Your task to perform on an android device: uninstall "Duolingo: language lessons" Image 0: 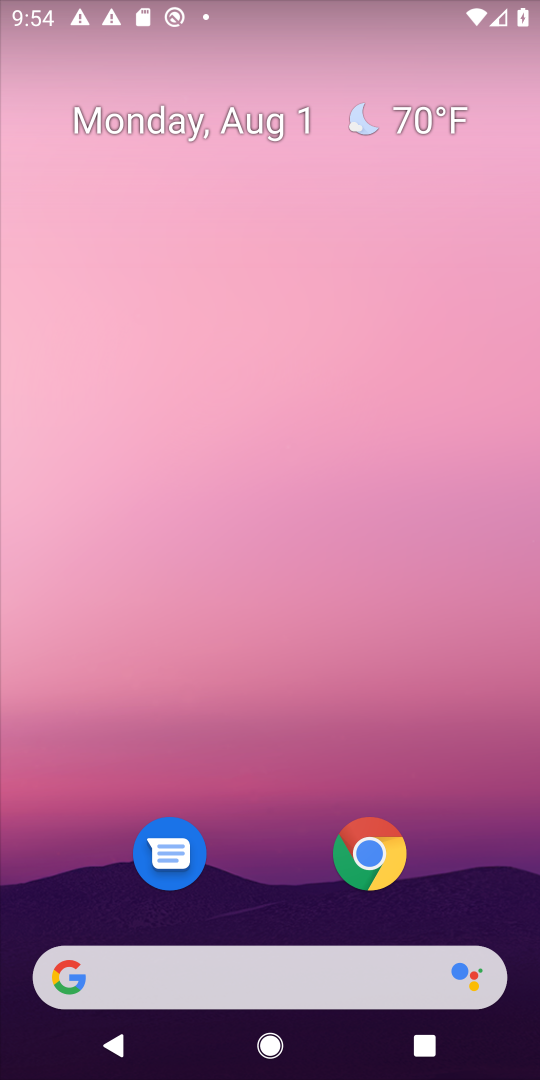
Step 0: drag from (294, 664) to (323, 155)
Your task to perform on an android device: uninstall "Duolingo: language lessons" Image 1: 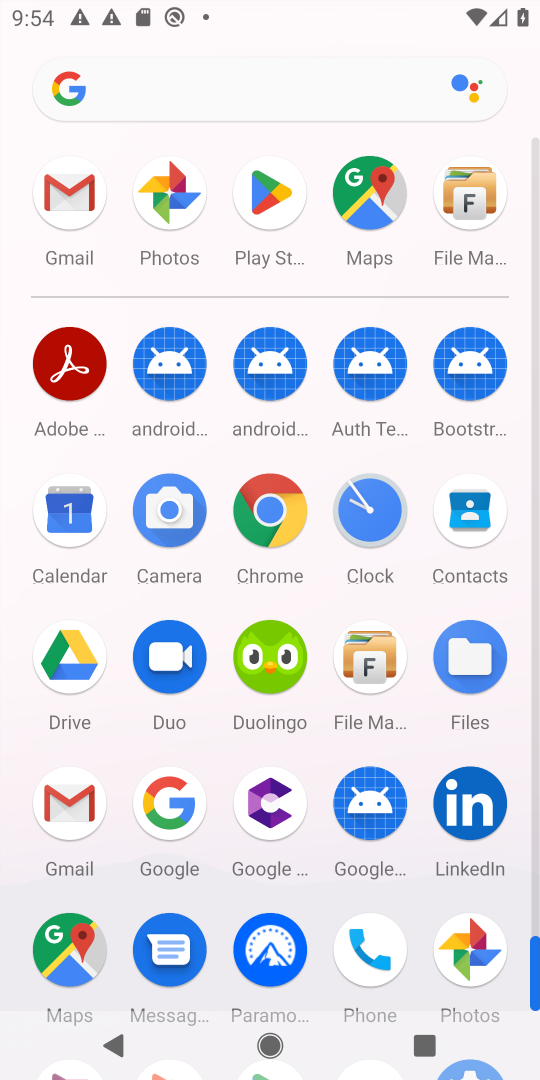
Step 1: click (246, 201)
Your task to perform on an android device: uninstall "Duolingo: language lessons" Image 2: 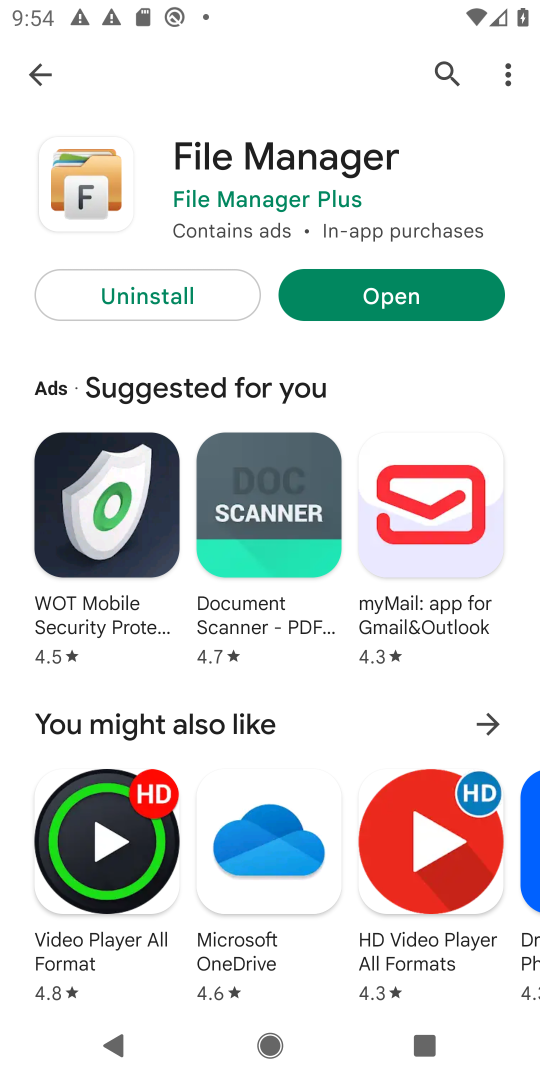
Step 2: click (433, 65)
Your task to perform on an android device: uninstall "Duolingo: language lessons" Image 3: 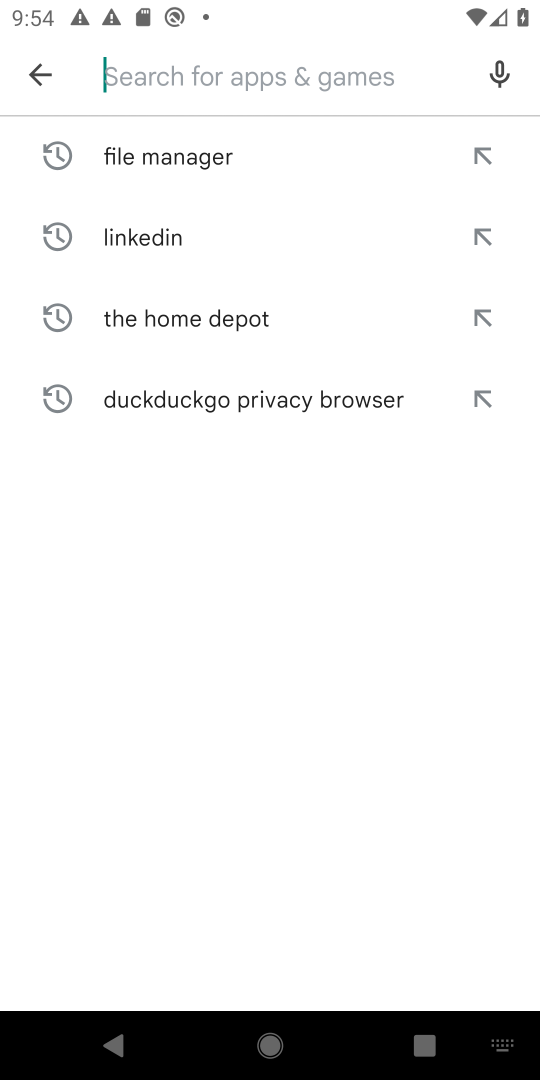
Step 3: click (213, 63)
Your task to perform on an android device: uninstall "Duolingo: language lessons" Image 4: 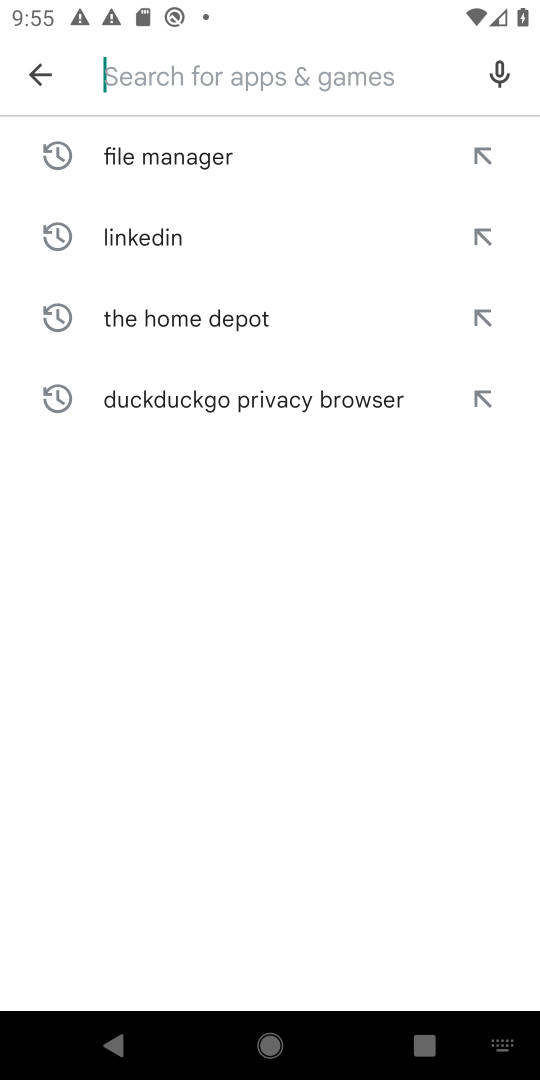
Step 4: type "Duolingo: language lessons"
Your task to perform on an android device: uninstall "Duolingo: language lessons" Image 5: 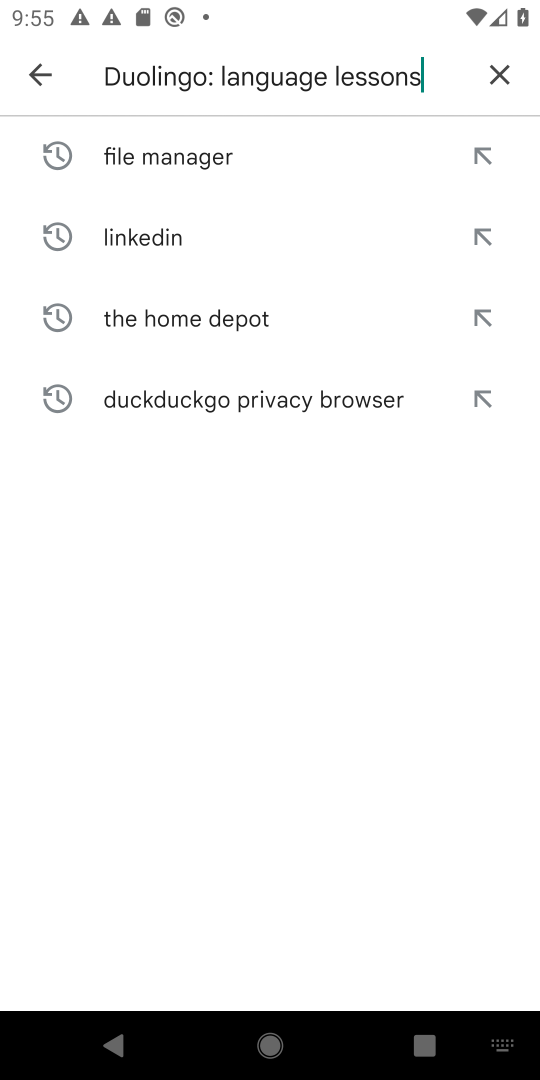
Step 5: type ""
Your task to perform on an android device: uninstall "Duolingo: language lessons" Image 6: 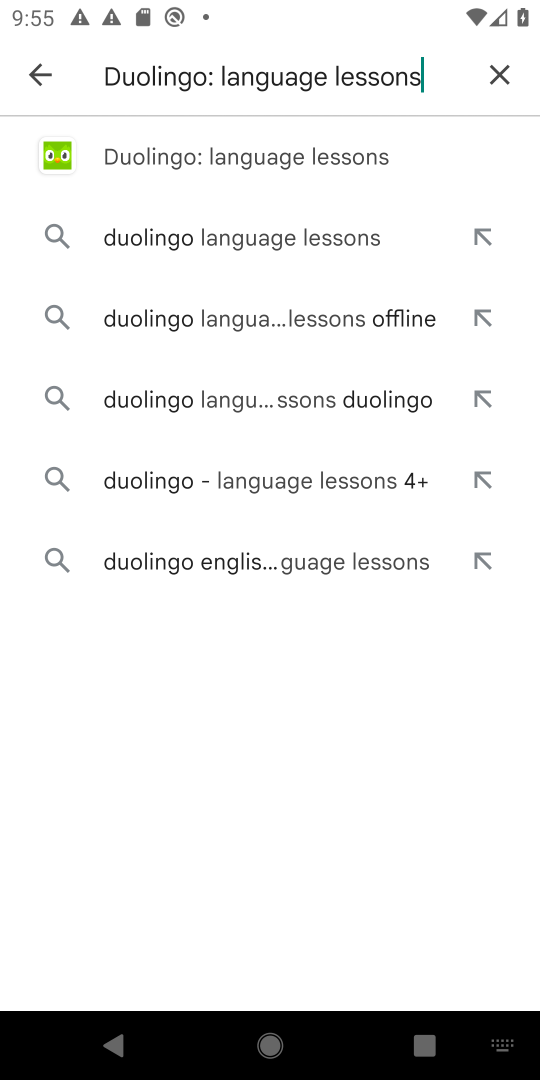
Step 6: click (187, 164)
Your task to perform on an android device: uninstall "Duolingo: language lessons" Image 7: 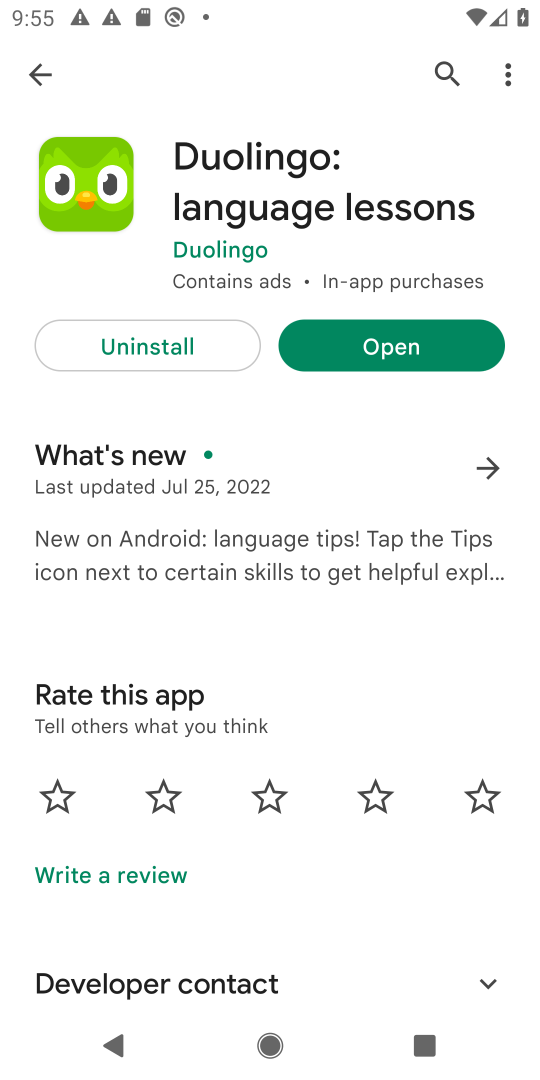
Step 7: click (184, 338)
Your task to perform on an android device: uninstall "Duolingo: language lessons" Image 8: 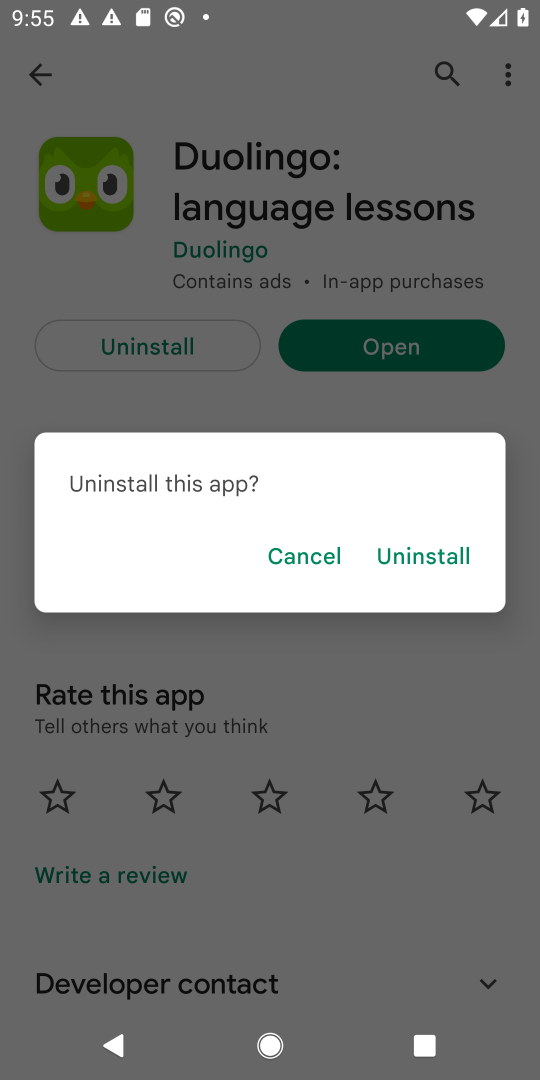
Step 8: click (409, 558)
Your task to perform on an android device: uninstall "Duolingo: language lessons" Image 9: 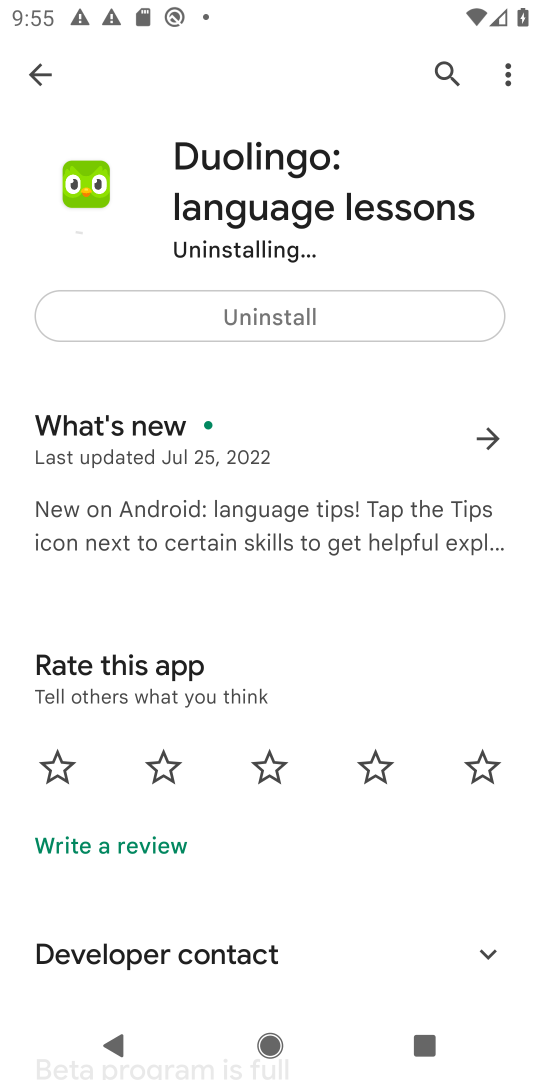
Step 9: task complete